Your task to perform on an android device: toggle data saver in the chrome app Image 0: 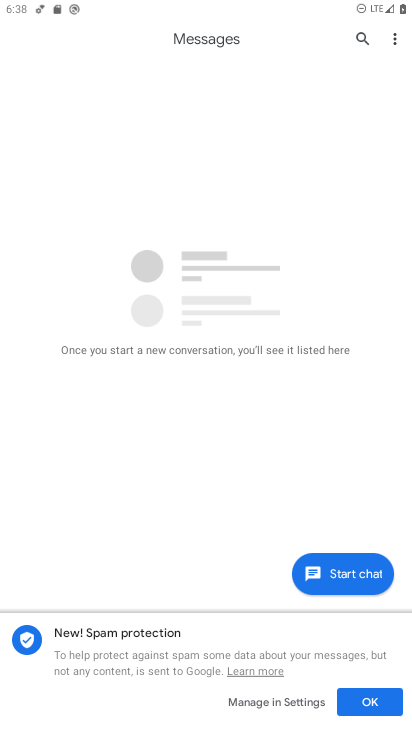
Step 0: press home button
Your task to perform on an android device: toggle data saver in the chrome app Image 1: 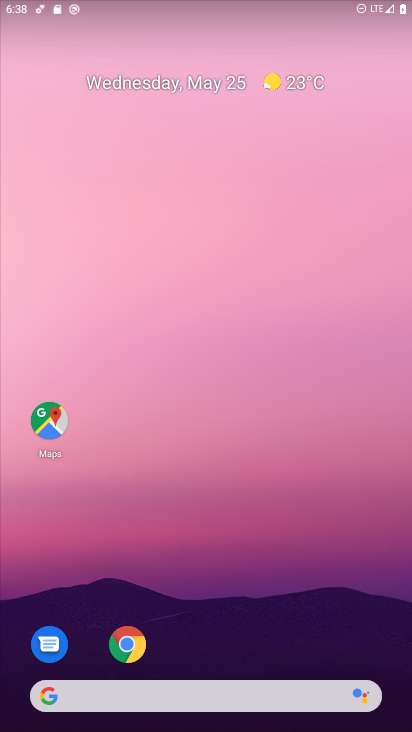
Step 1: drag from (379, 629) to (254, 10)
Your task to perform on an android device: toggle data saver in the chrome app Image 2: 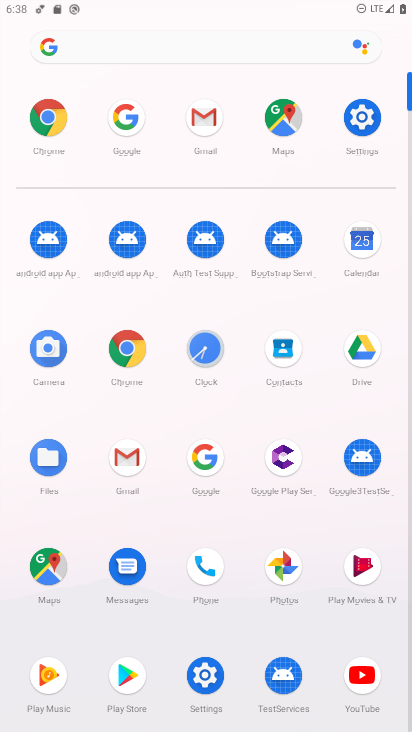
Step 2: click (125, 350)
Your task to perform on an android device: toggle data saver in the chrome app Image 3: 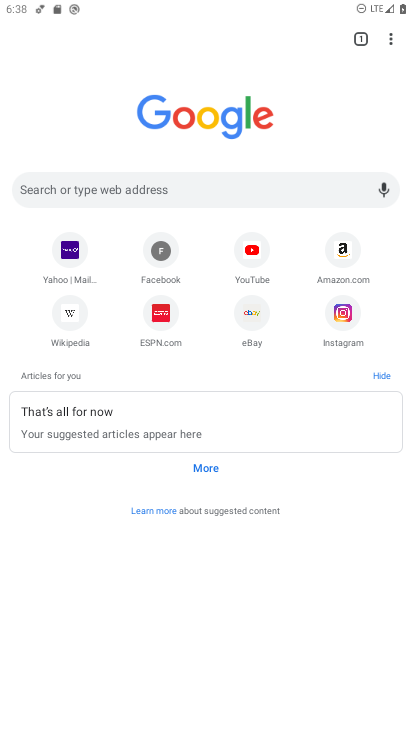
Step 3: click (387, 32)
Your task to perform on an android device: toggle data saver in the chrome app Image 4: 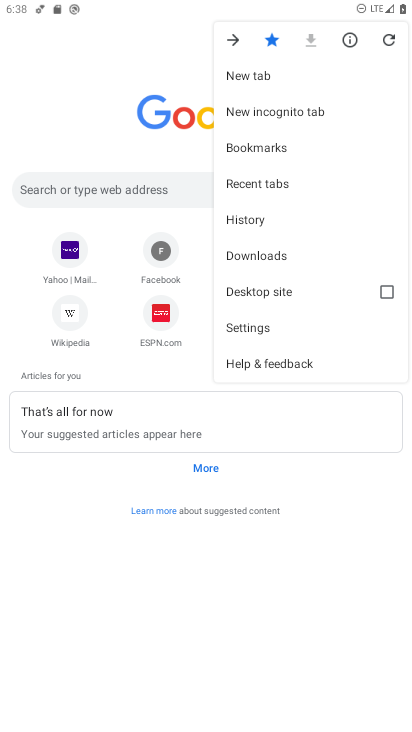
Step 4: click (264, 337)
Your task to perform on an android device: toggle data saver in the chrome app Image 5: 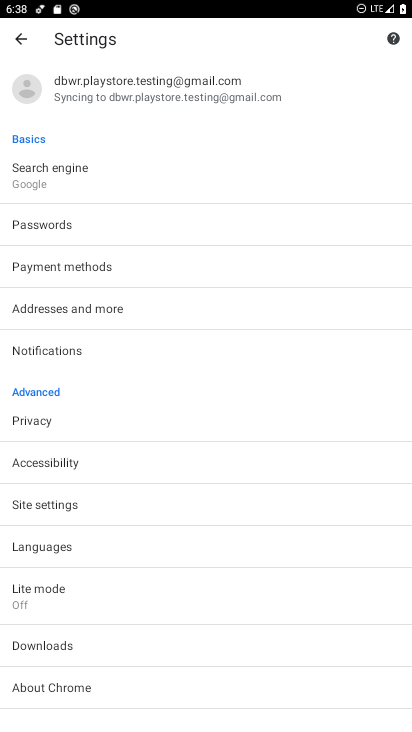
Step 5: drag from (144, 640) to (252, 283)
Your task to perform on an android device: toggle data saver in the chrome app Image 6: 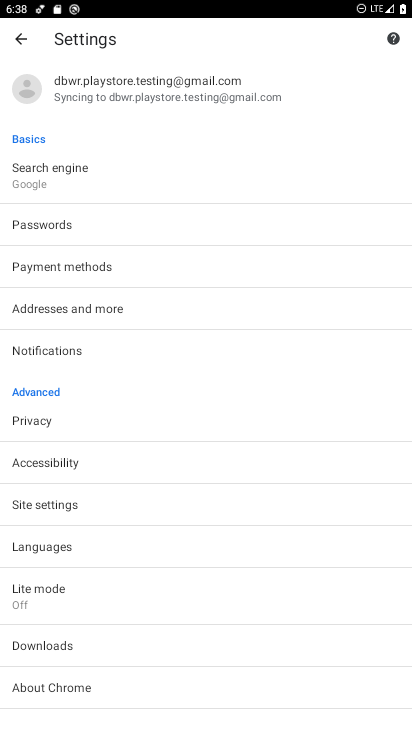
Step 6: click (72, 603)
Your task to perform on an android device: toggle data saver in the chrome app Image 7: 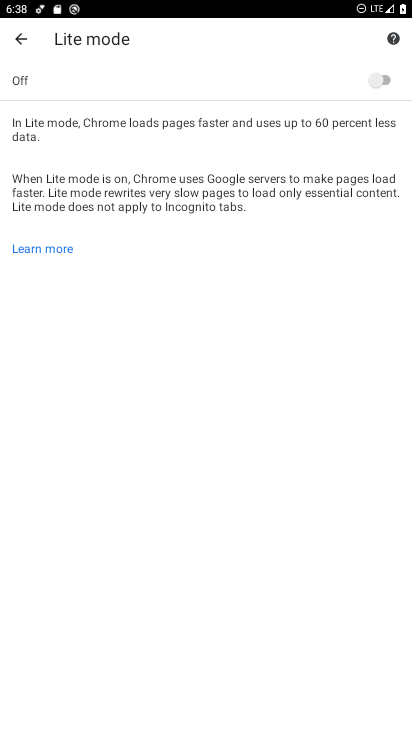
Step 7: click (400, 79)
Your task to perform on an android device: toggle data saver in the chrome app Image 8: 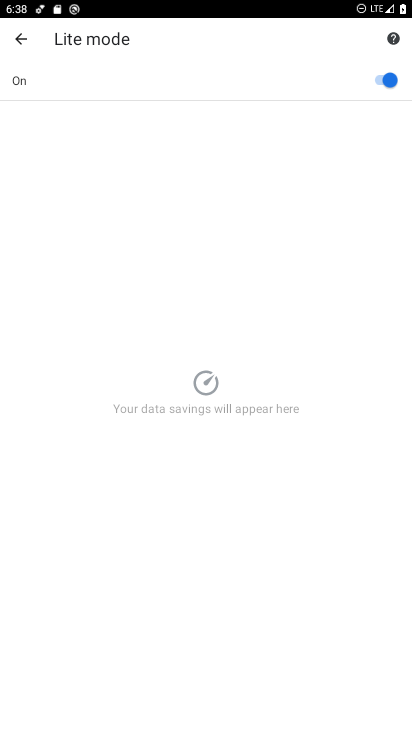
Step 8: task complete